Your task to perform on an android device: open device folders in google photos Image 0: 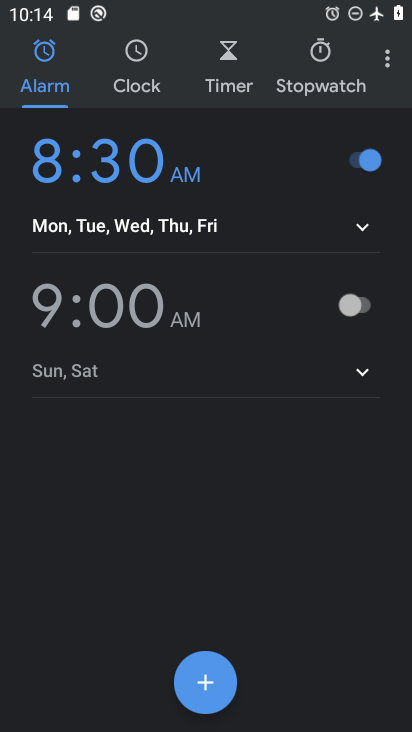
Step 0: press home button
Your task to perform on an android device: open device folders in google photos Image 1: 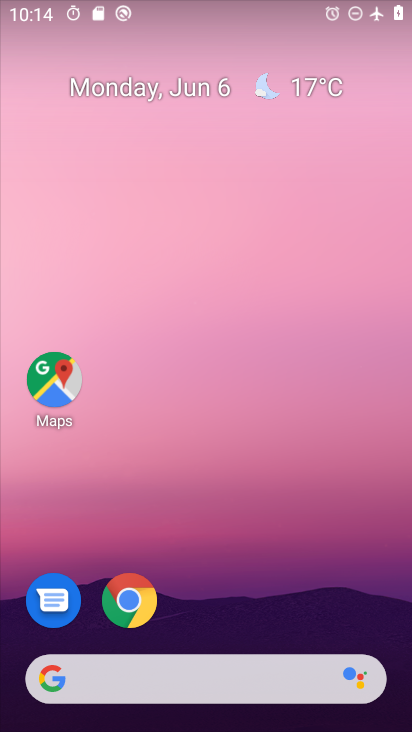
Step 1: drag from (330, 562) to (228, 5)
Your task to perform on an android device: open device folders in google photos Image 2: 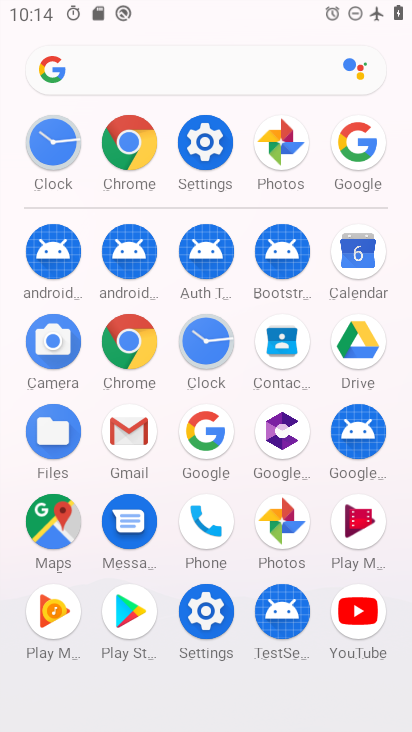
Step 2: click (286, 536)
Your task to perform on an android device: open device folders in google photos Image 3: 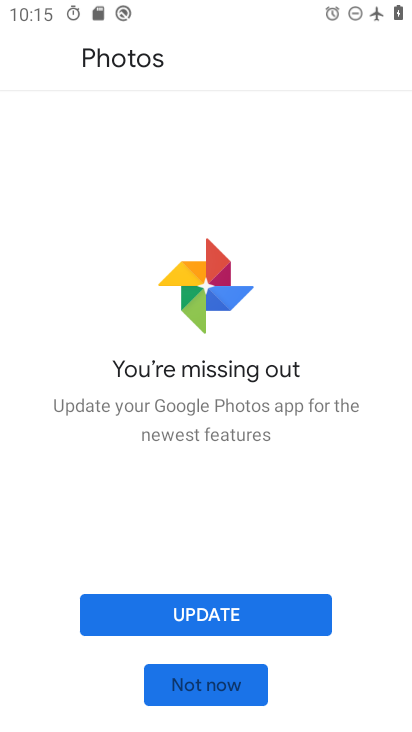
Step 3: click (244, 619)
Your task to perform on an android device: open device folders in google photos Image 4: 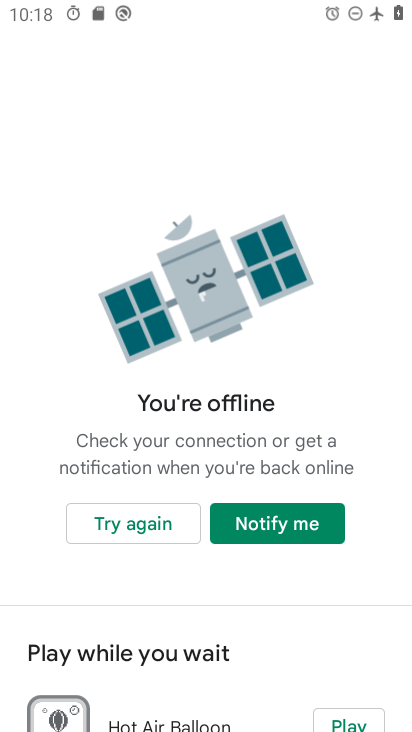
Step 4: task complete